Your task to perform on an android device: toggle javascript in the chrome app Image 0: 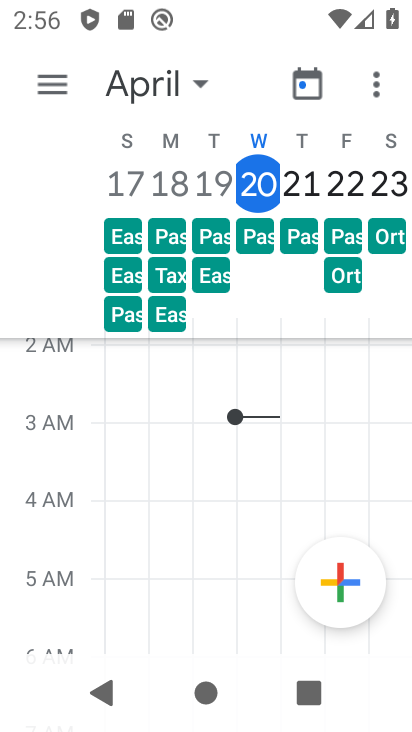
Step 0: press home button
Your task to perform on an android device: toggle javascript in the chrome app Image 1: 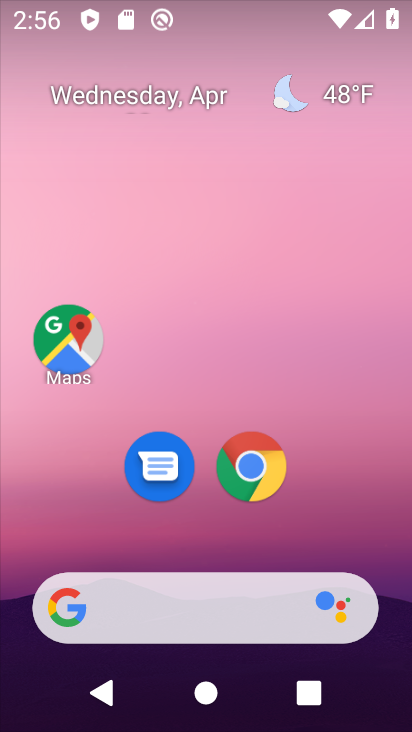
Step 1: click (243, 472)
Your task to perform on an android device: toggle javascript in the chrome app Image 2: 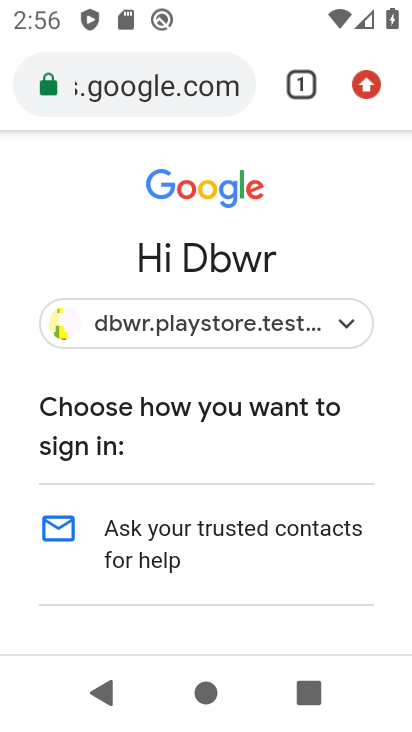
Step 2: click (366, 80)
Your task to perform on an android device: toggle javascript in the chrome app Image 3: 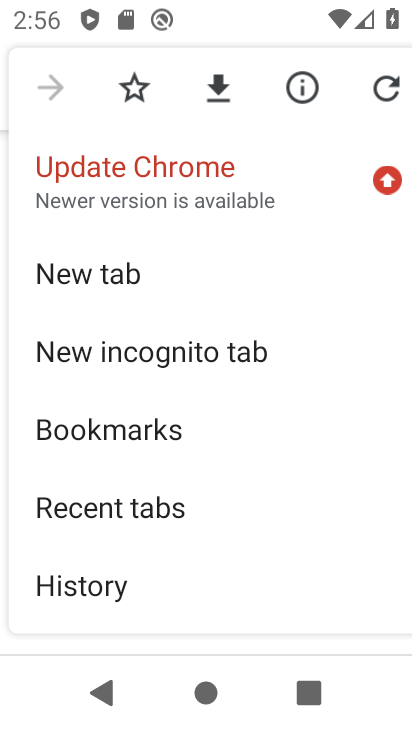
Step 3: drag from (221, 596) to (219, 153)
Your task to perform on an android device: toggle javascript in the chrome app Image 4: 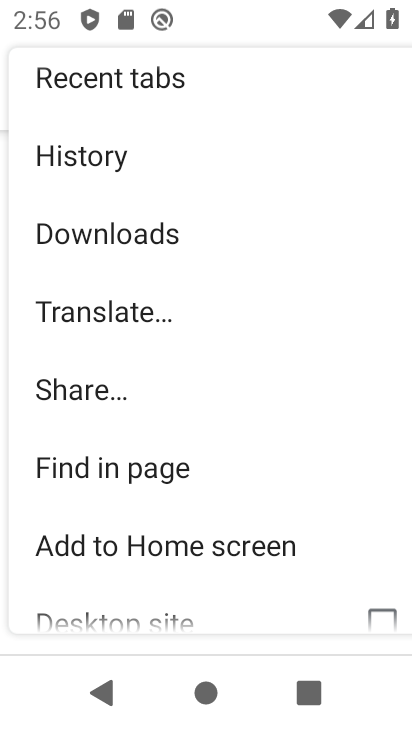
Step 4: drag from (249, 493) to (240, 110)
Your task to perform on an android device: toggle javascript in the chrome app Image 5: 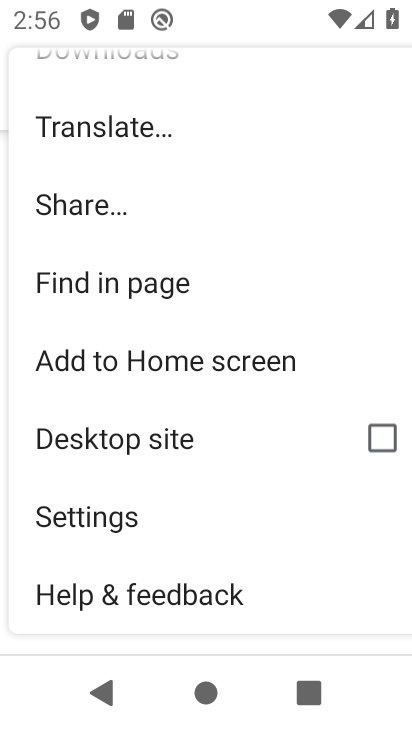
Step 5: click (205, 525)
Your task to perform on an android device: toggle javascript in the chrome app Image 6: 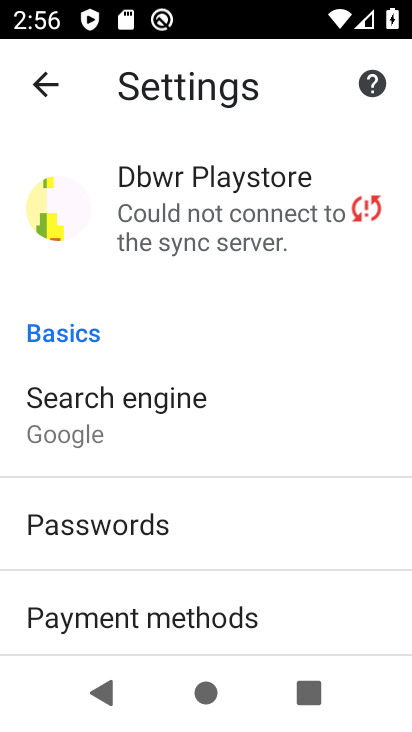
Step 6: drag from (268, 595) to (257, 297)
Your task to perform on an android device: toggle javascript in the chrome app Image 7: 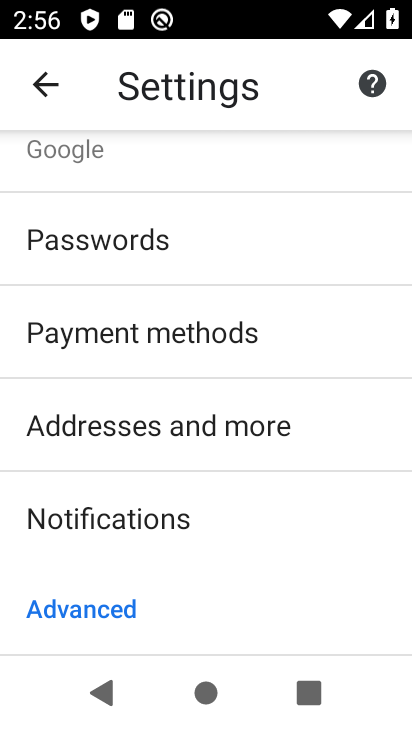
Step 7: drag from (235, 578) to (190, 190)
Your task to perform on an android device: toggle javascript in the chrome app Image 8: 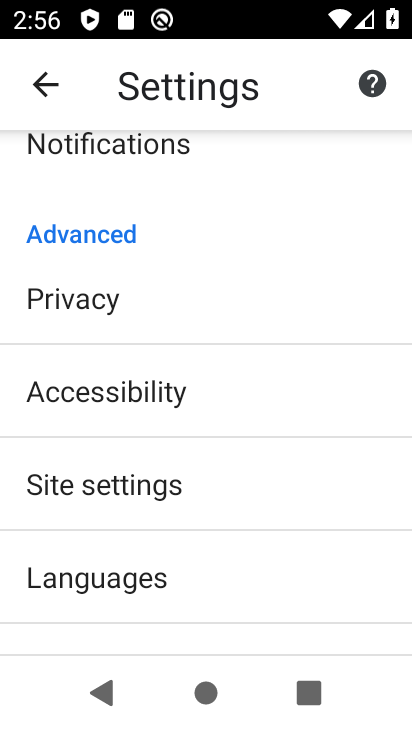
Step 8: click (220, 490)
Your task to perform on an android device: toggle javascript in the chrome app Image 9: 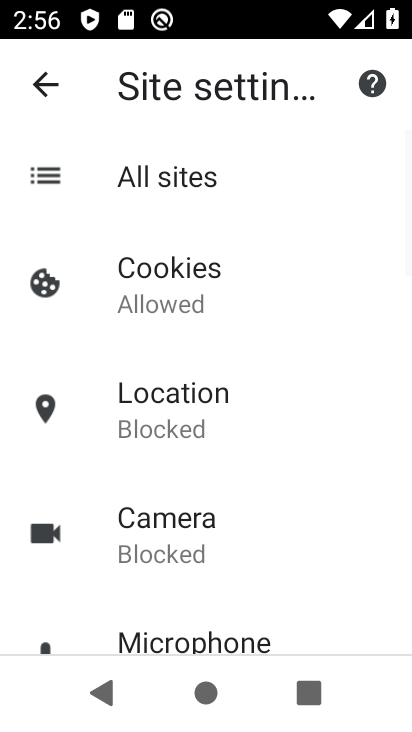
Step 9: drag from (271, 584) to (275, 201)
Your task to perform on an android device: toggle javascript in the chrome app Image 10: 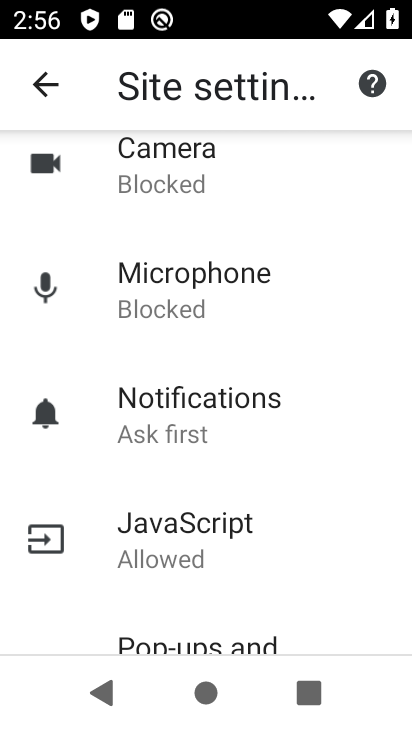
Step 10: click (250, 533)
Your task to perform on an android device: toggle javascript in the chrome app Image 11: 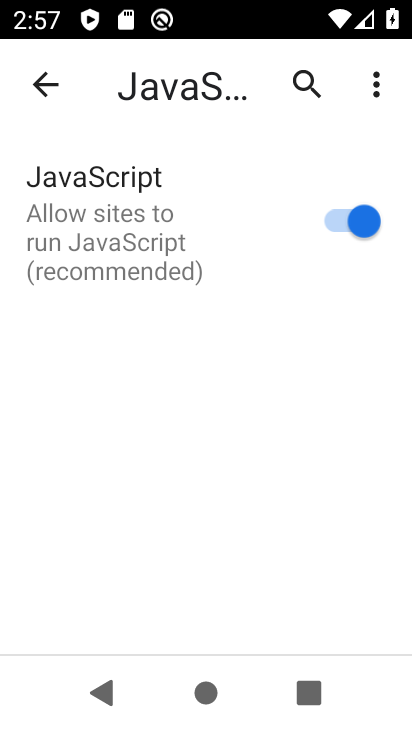
Step 11: click (331, 214)
Your task to perform on an android device: toggle javascript in the chrome app Image 12: 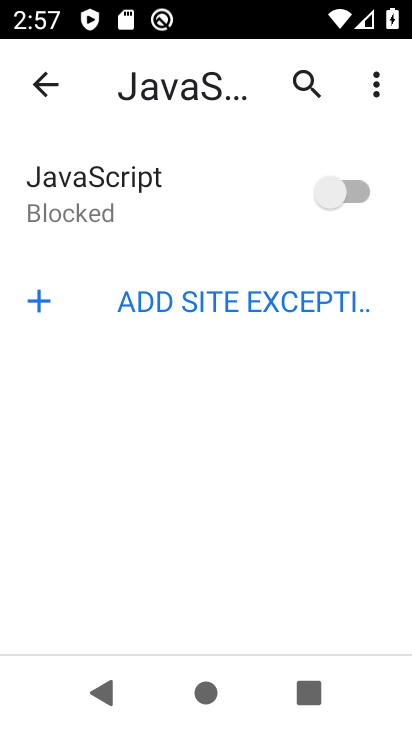
Step 12: task complete